Your task to perform on an android device: What's on my calendar tomorrow? Image 0: 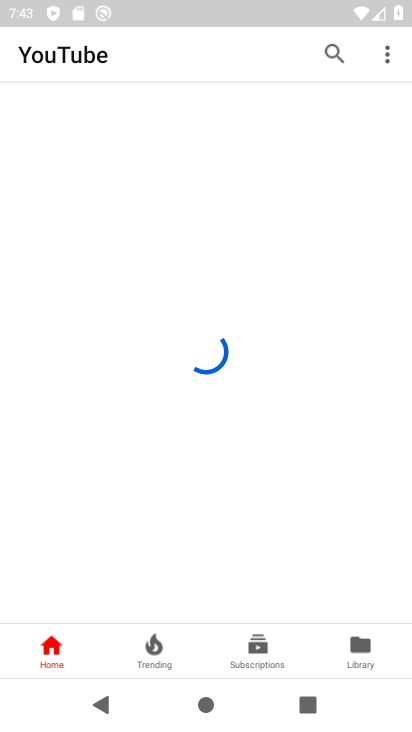
Step 0: press home button
Your task to perform on an android device: What's on my calendar tomorrow? Image 1: 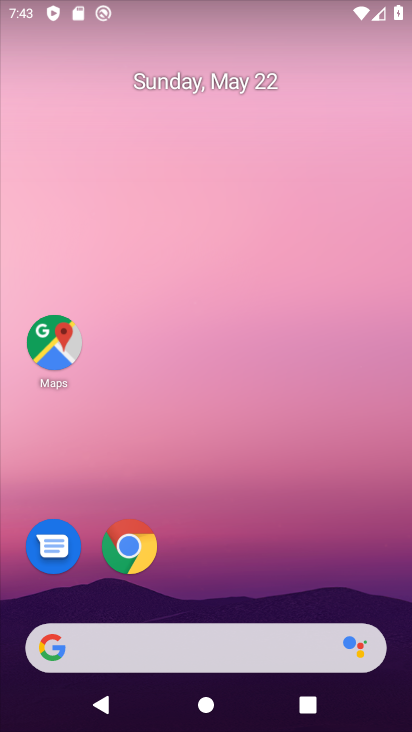
Step 1: drag from (164, 640) to (292, 197)
Your task to perform on an android device: What's on my calendar tomorrow? Image 2: 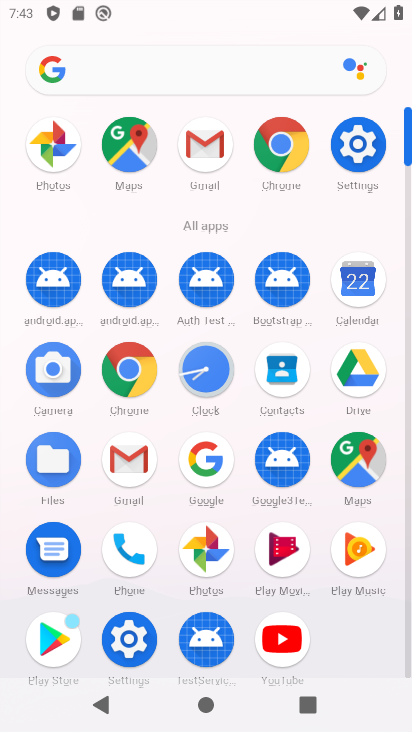
Step 2: click (360, 288)
Your task to perform on an android device: What's on my calendar tomorrow? Image 3: 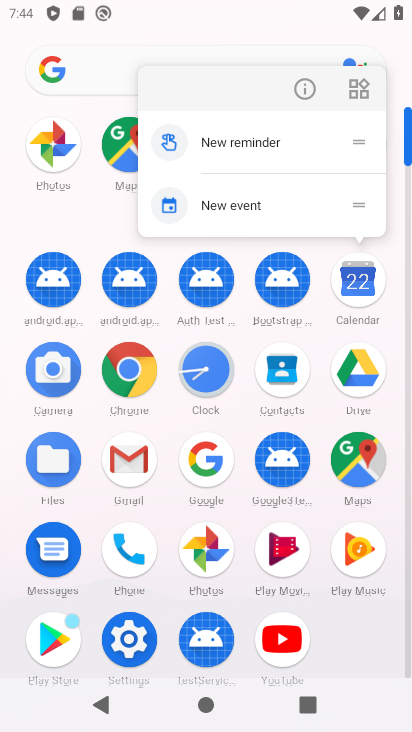
Step 3: click (360, 290)
Your task to perform on an android device: What's on my calendar tomorrow? Image 4: 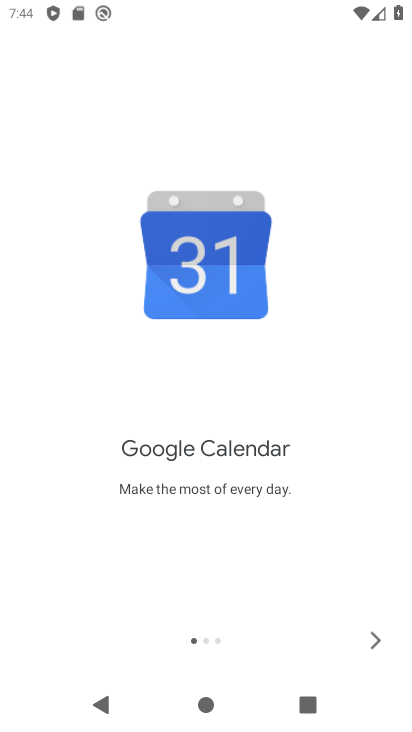
Step 4: click (367, 635)
Your task to perform on an android device: What's on my calendar tomorrow? Image 5: 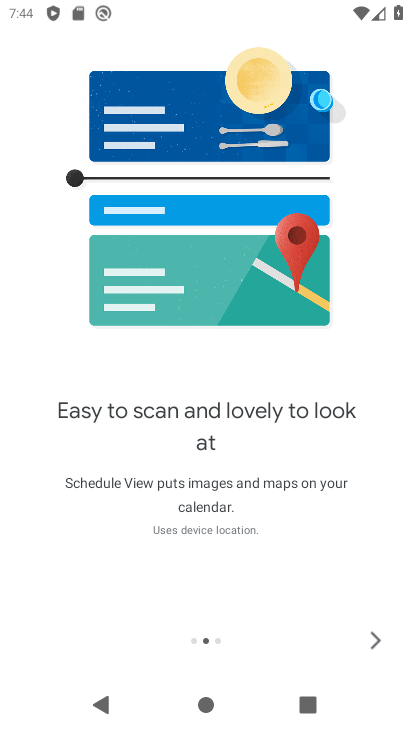
Step 5: click (367, 635)
Your task to perform on an android device: What's on my calendar tomorrow? Image 6: 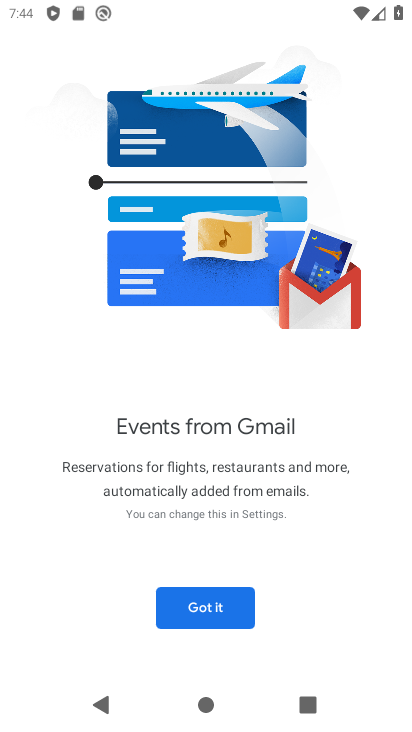
Step 6: click (220, 616)
Your task to perform on an android device: What's on my calendar tomorrow? Image 7: 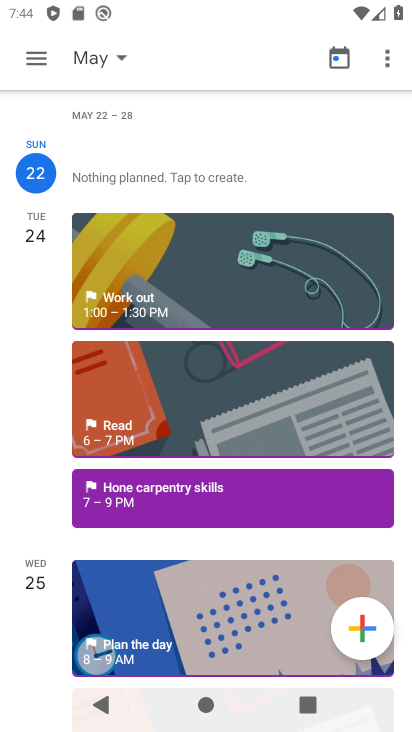
Step 7: click (99, 59)
Your task to perform on an android device: What's on my calendar tomorrow? Image 8: 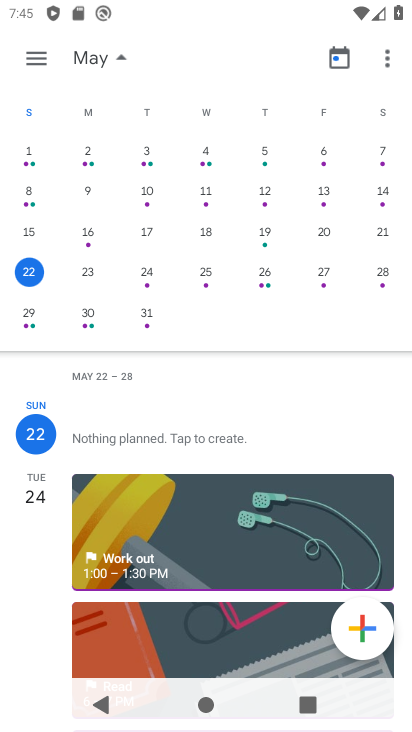
Step 8: click (85, 274)
Your task to perform on an android device: What's on my calendar tomorrow? Image 9: 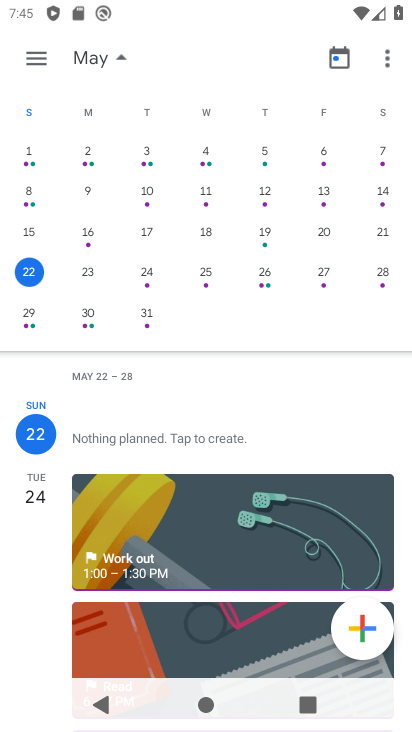
Step 9: click (94, 276)
Your task to perform on an android device: What's on my calendar tomorrow? Image 10: 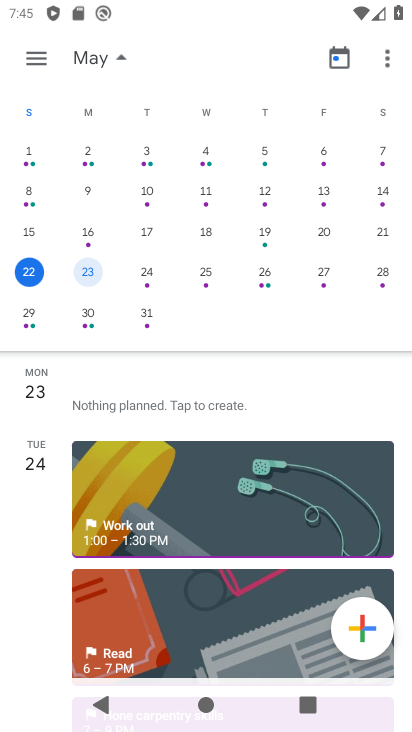
Step 10: click (40, 51)
Your task to perform on an android device: What's on my calendar tomorrow? Image 11: 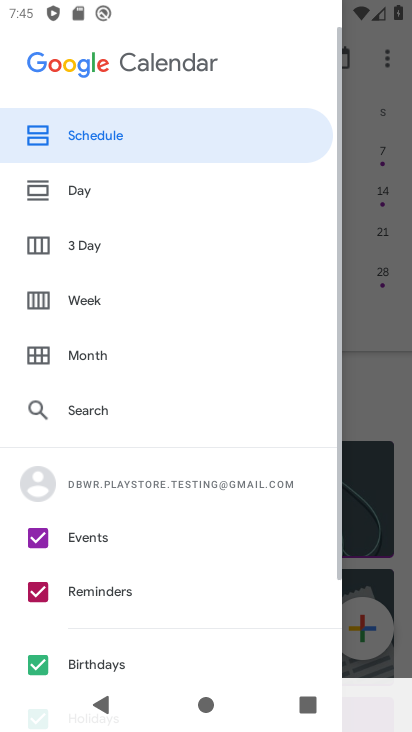
Step 11: click (113, 132)
Your task to perform on an android device: What's on my calendar tomorrow? Image 12: 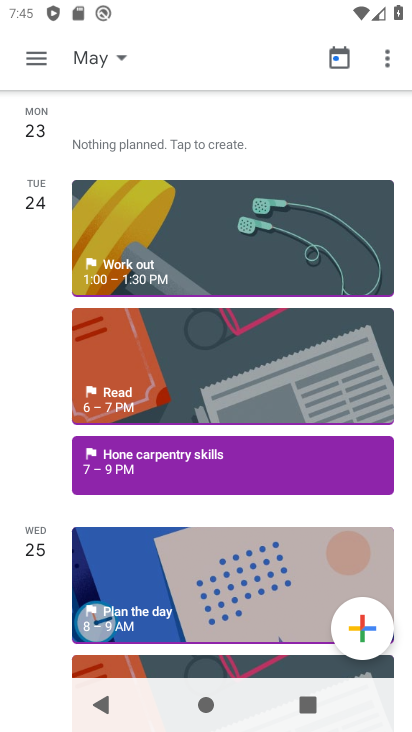
Step 12: task complete